Your task to perform on an android device: add a contact Image 0: 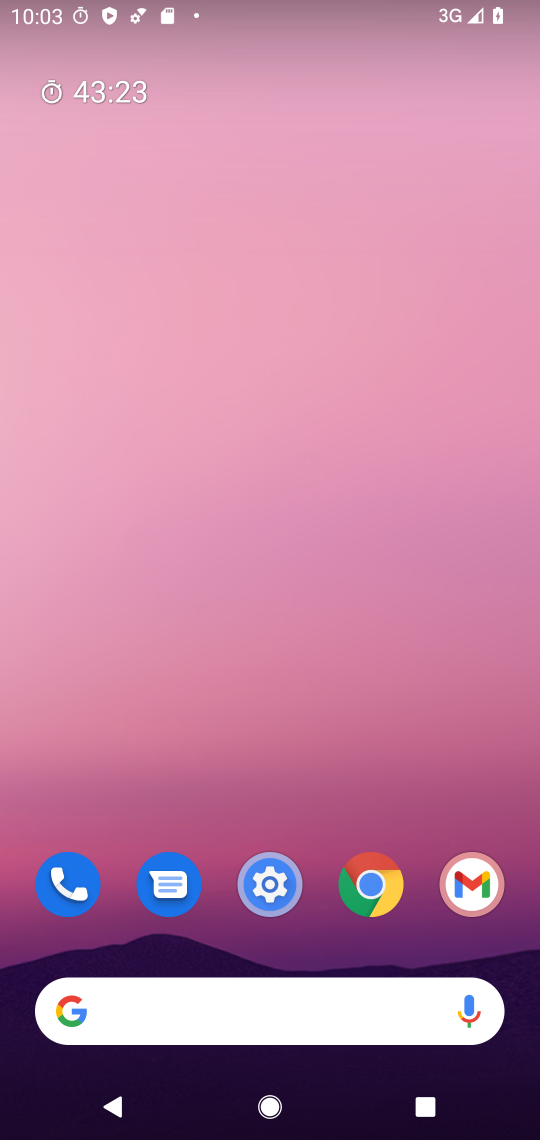
Step 0: drag from (254, 677) to (168, 28)
Your task to perform on an android device: add a contact Image 1: 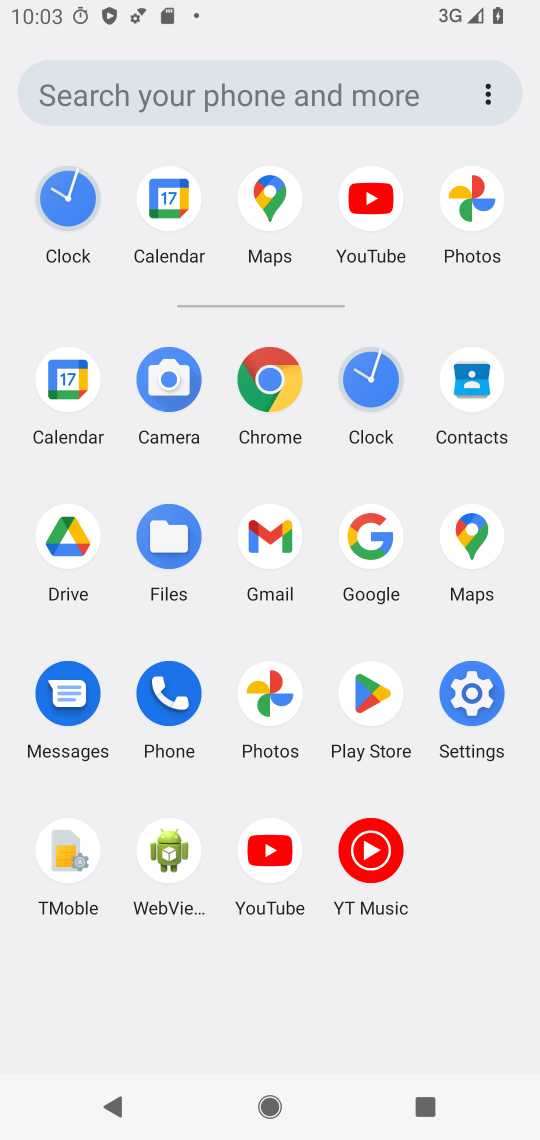
Step 1: click (476, 405)
Your task to perform on an android device: add a contact Image 2: 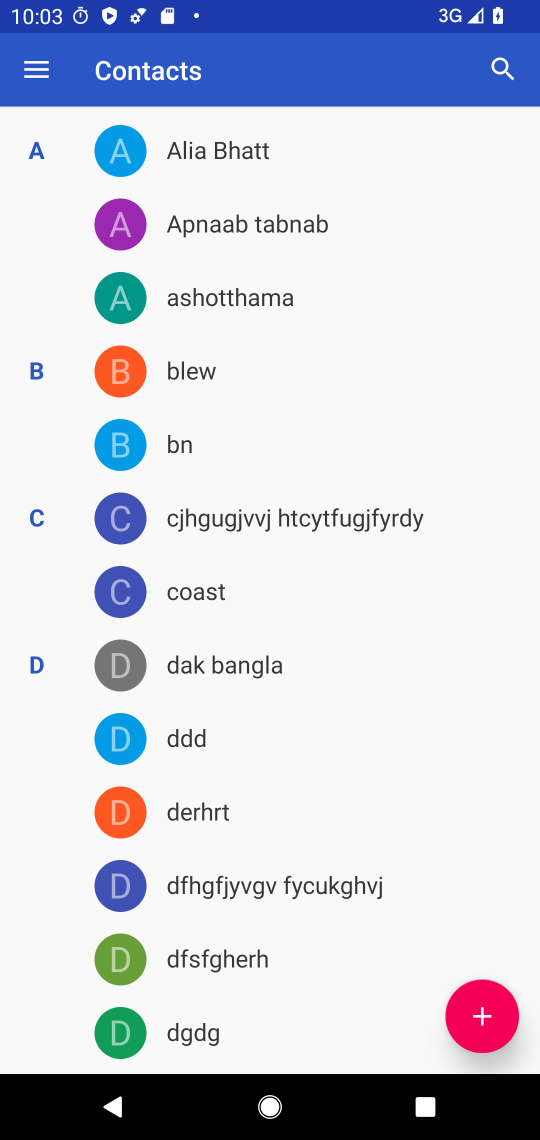
Step 2: click (478, 1000)
Your task to perform on an android device: add a contact Image 3: 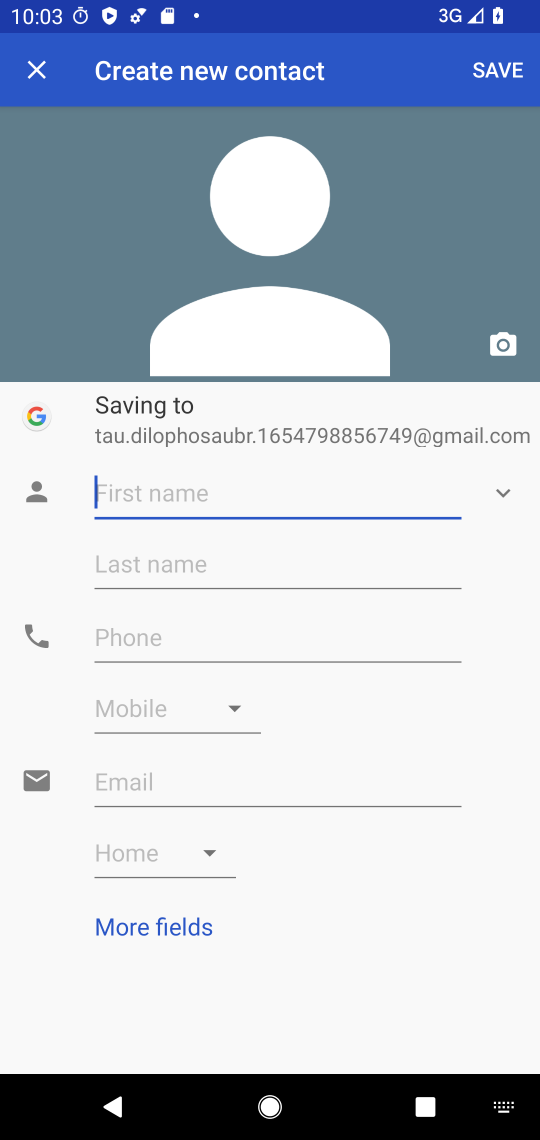
Step 3: type "fdhfdhf"
Your task to perform on an android device: add a contact Image 4: 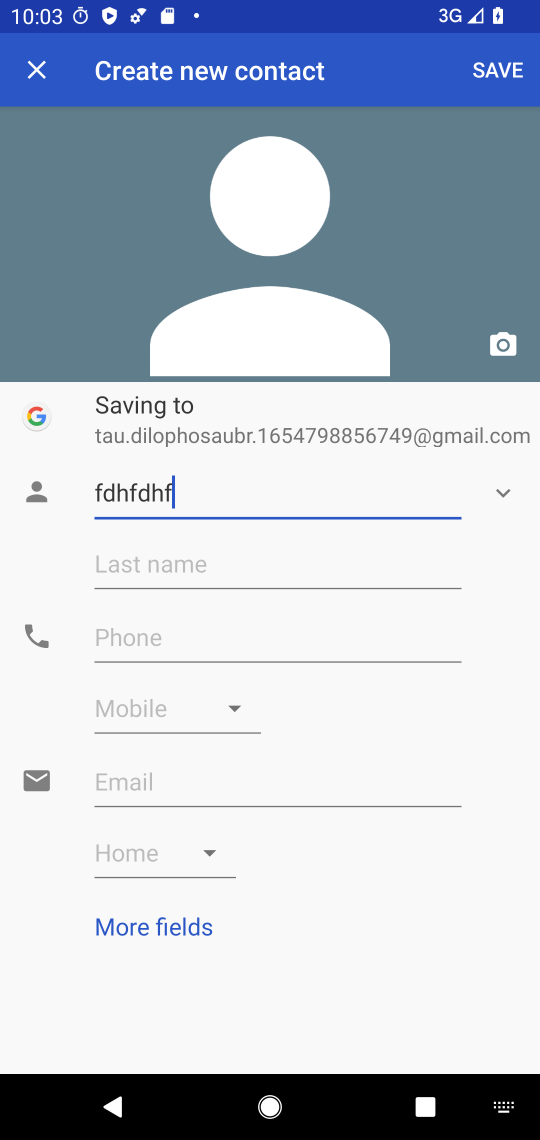
Step 4: click (206, 645)
Your task to perform on an android device: add a contact Image 5: 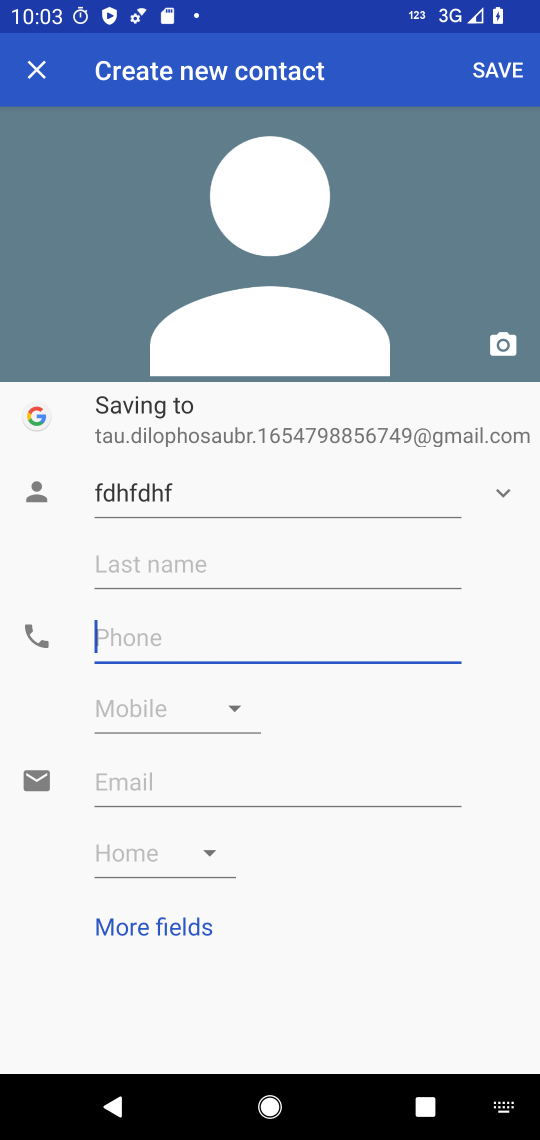
Step 5: type "8658574456"
Your task to perform on an android device: add a contact Image 6: 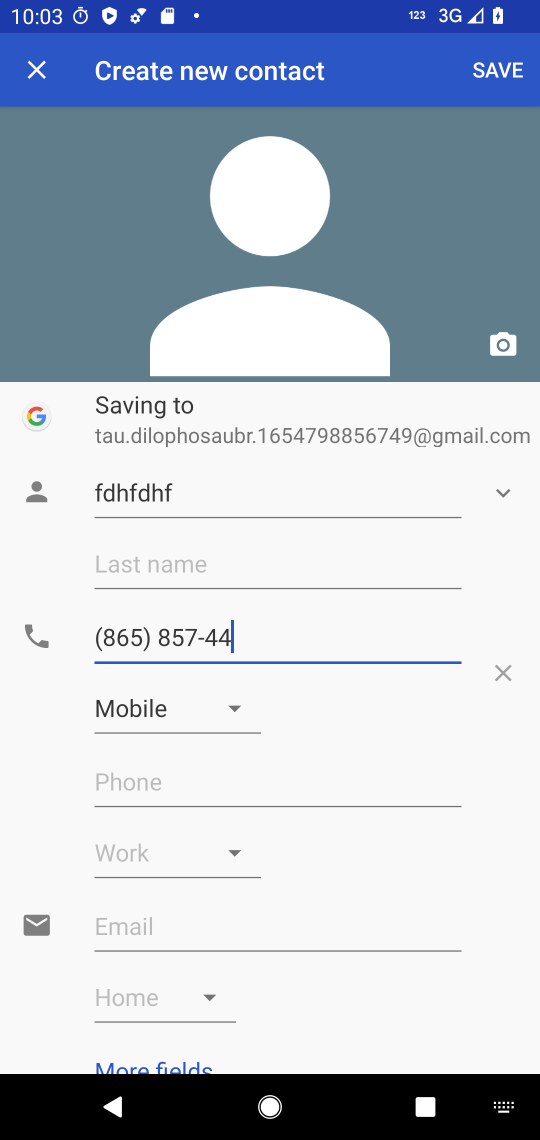
Step 6: type ""
Your task to perform on an android device: add a contact Image 7: 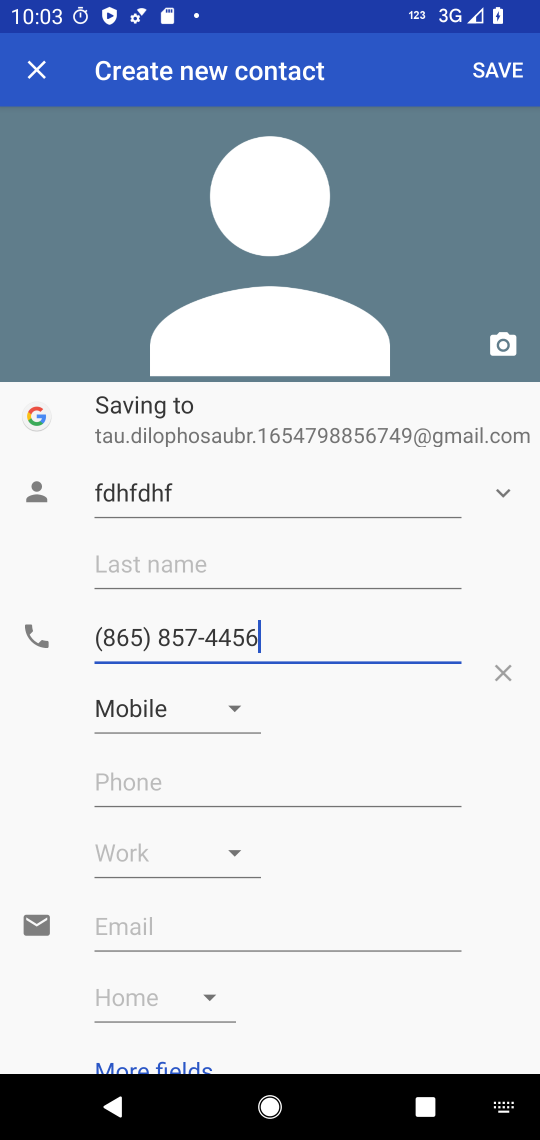
Step 7: click (513, 70)
Your task to perform on an android device: add a contact Image 8: 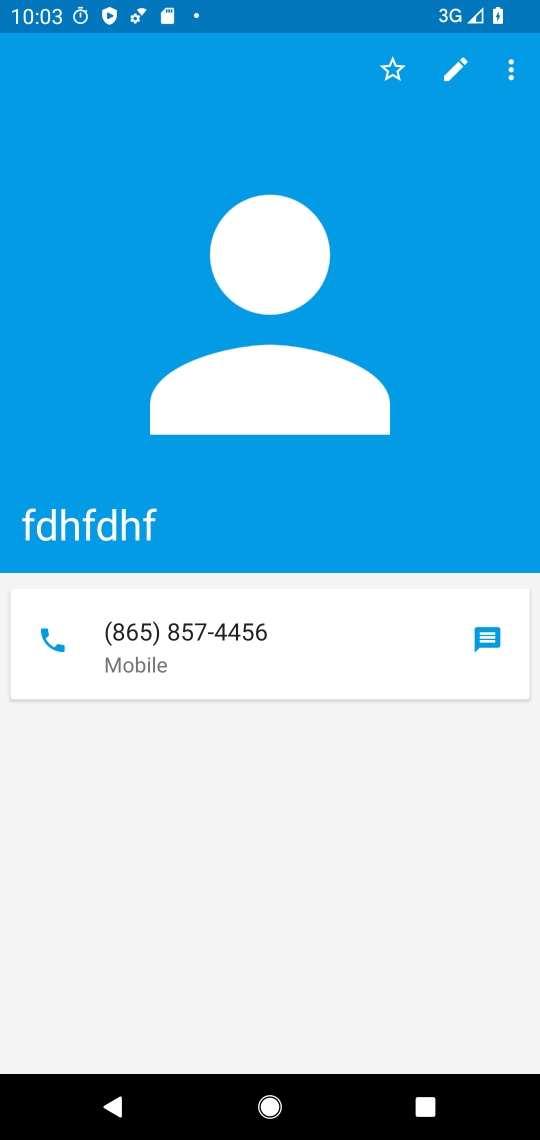
Step 8: task complete